Your task to perform on an android device: see tabs open on other devices in the chrome app Image 0: 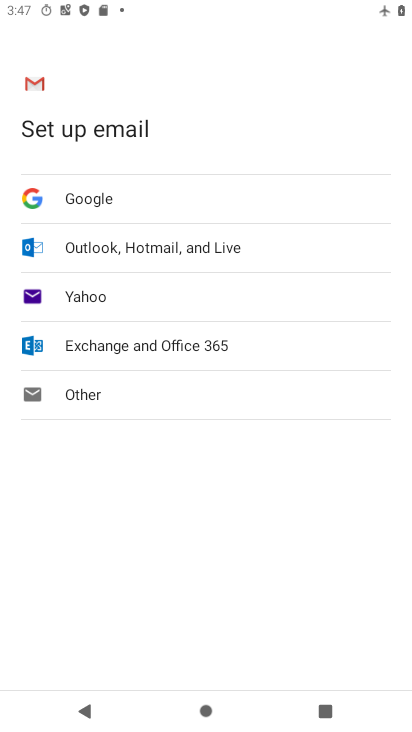
Step 0: press home button
Your task to perform on an android device: see tabs open on other devices in the chrome app Image 1: 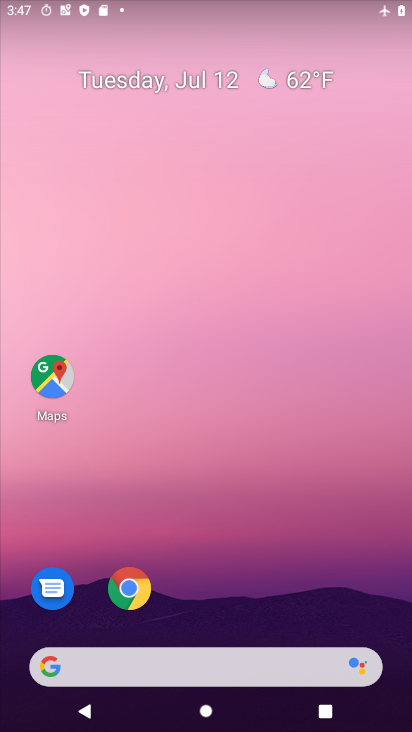
Step 1: click (126, 584)
Your task to perform on an android device: see tabs open on other devices in the chrome app Image 2: 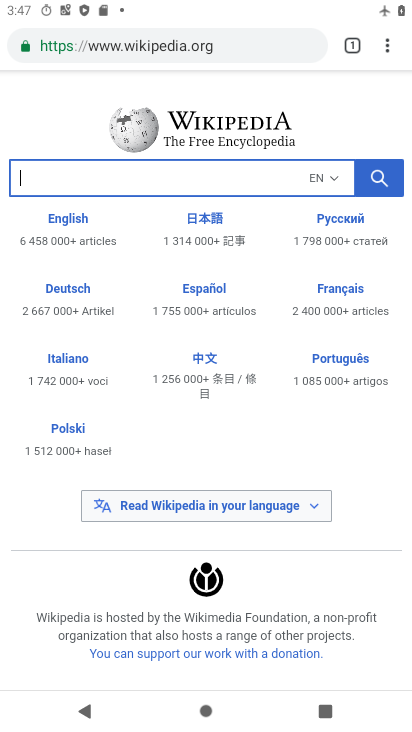
Step 2: click (384, 41)
Your task to perform on an android device: see tabs open on other devices in the chrome app Image 3: 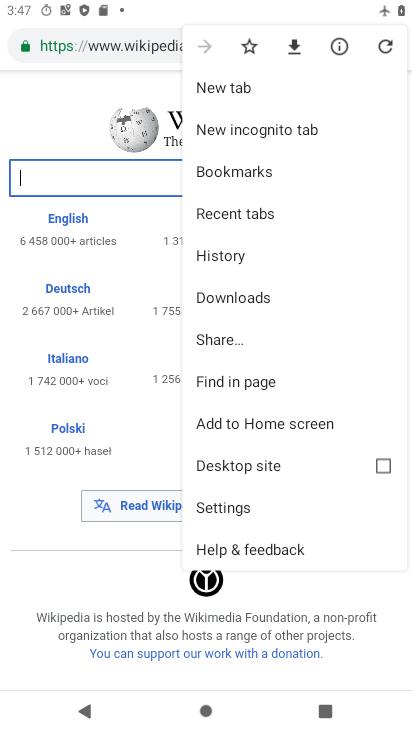
Step 3: click (265, 218)
Your task to perform on an android device: see tabs open on other devices in the chrome app Image 4: 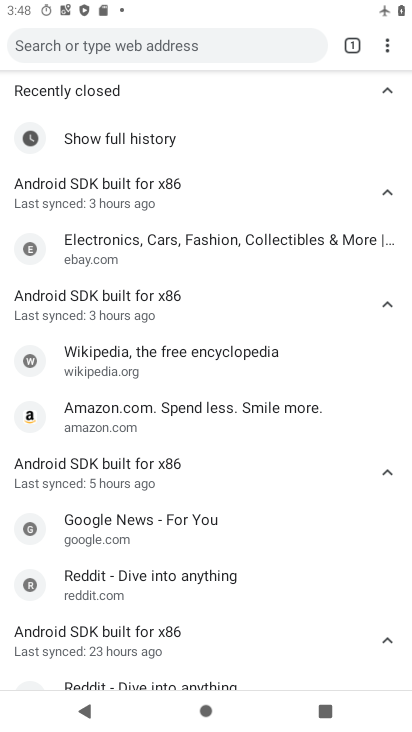
Step 4: task complete